Your task to perform on an android device: What's the weather? Image 0: 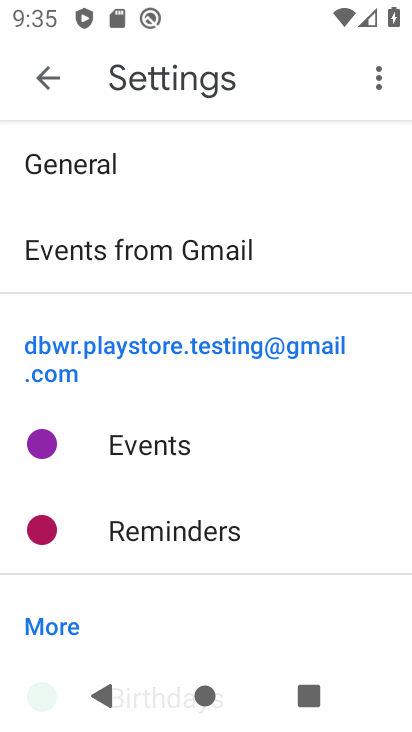
Step 0: press back button
Your task to perform on an android device: What's the weather? Image 1: 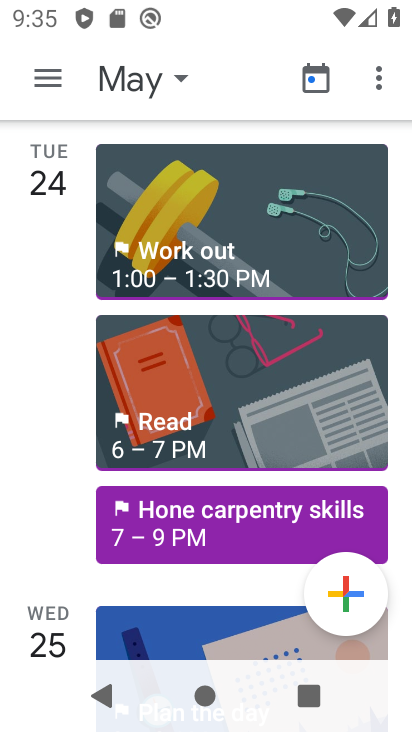
Step 1: press back button
Your task to perform on an android device: What's the weather? Image 2: 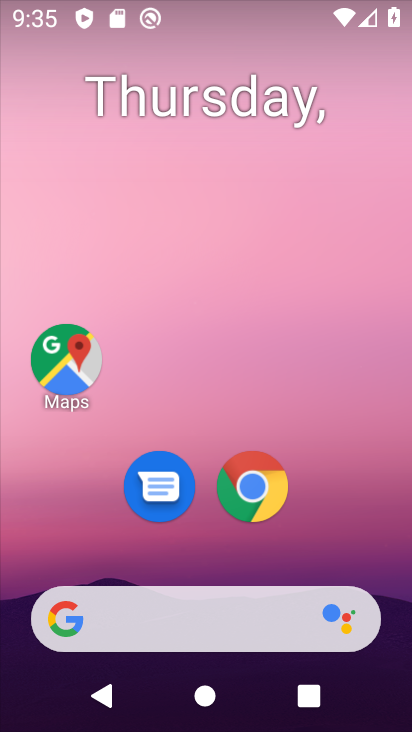
Step 2: click (202, 629)
Your task to perform on an android device: What's the weather? Image 3: 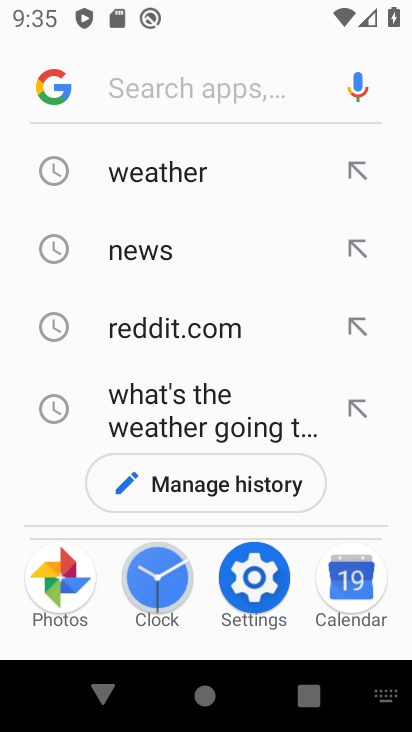
Step 3: click (155, 186)
Your task to perform on an android device: What's the weather? Image 4: 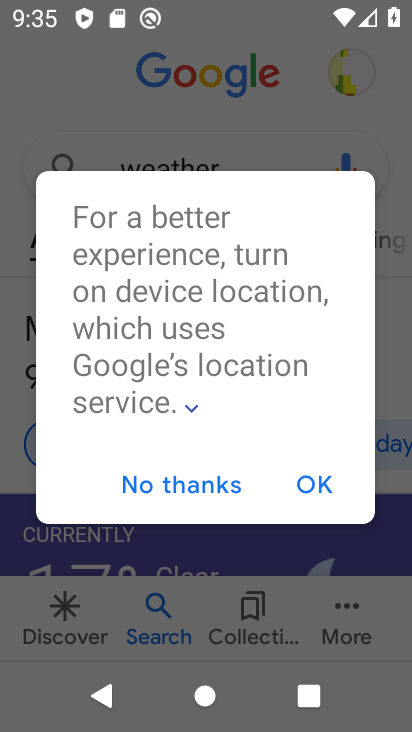
Step 4: click (292, 480)
Your task to perform on an android device: What's the weather? Image 5: 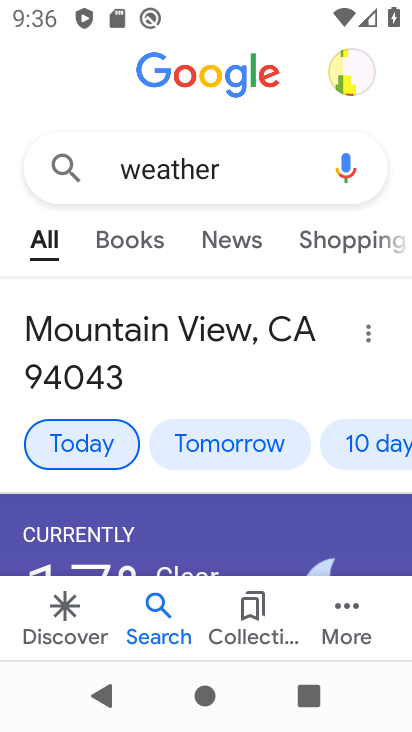
Step 5: task complete